Your task to perform on an android device: turn smart compose on in the gmail app Image 0: 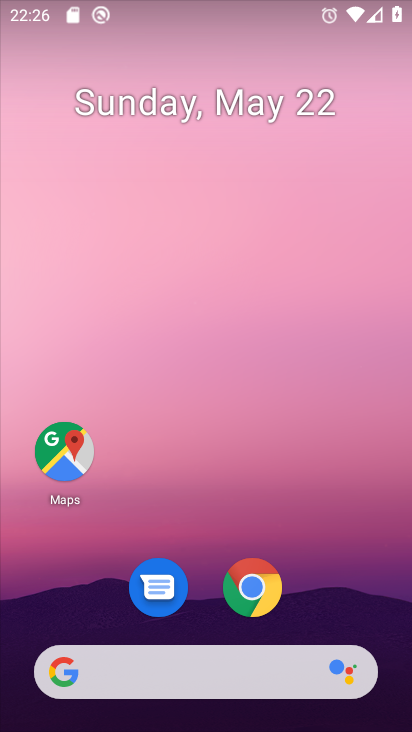
Step 0: drag from (218, 485) to (285, 0)
Your task to perform on an android device: turn smart compose on in the gmail app Image 1: 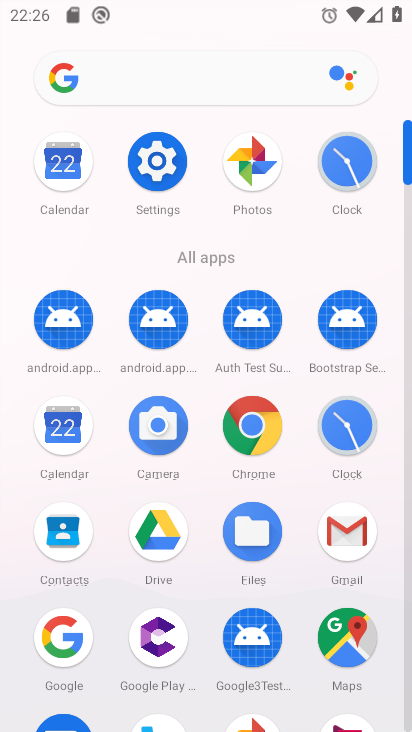
Step 1: click (348, 523)
Your task to perform on an android device: turn smart compose on in the gmail app Image 2: 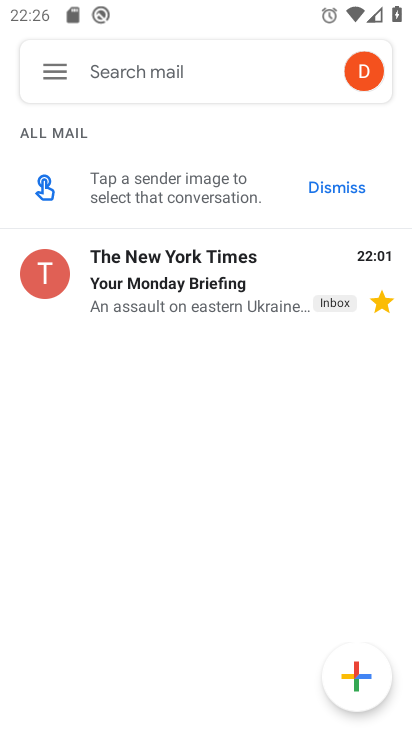
Step 2: click (58, 72)
Your task to perform on an android device: turn smart compose on in the gmail app Image 3: 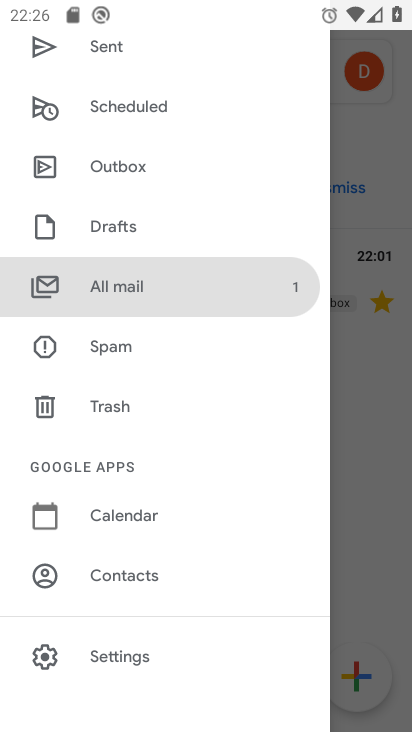
Step 3: click (158, 651)
Your task to perform on an android device: turn smart compose on in the gmail app Image 4: 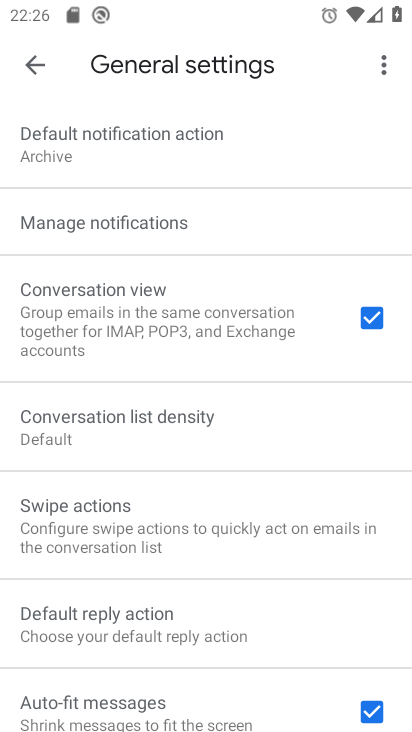
Step 4: drag from (241, 476) to (263, 72)
Your task to perform on an android device: turn smart compose on in the gmail app Image 5: 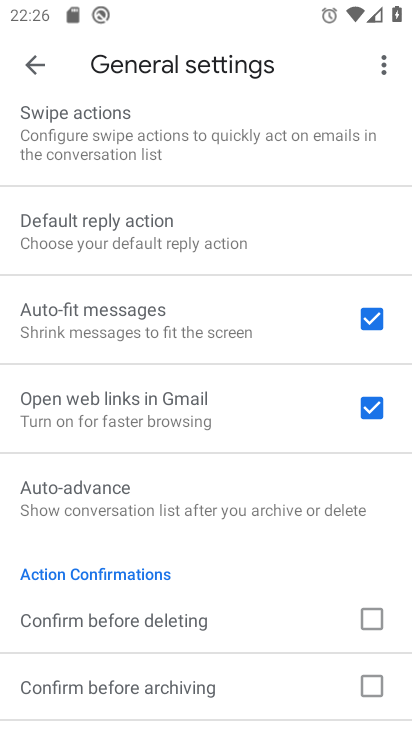
Step 5: click (34, 61)
Your task to perform on an android device: turn smart compose on in the gmail app Image 6: 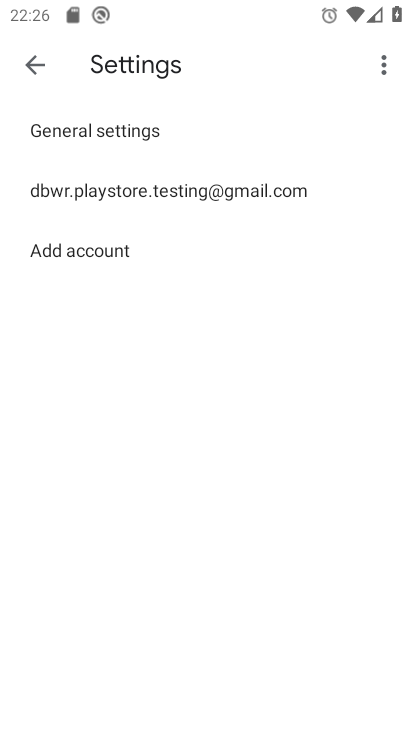
Step 6: click (158, 189)
Your task to perform on an android device: turn smart compose on in the gmail app Image 7: 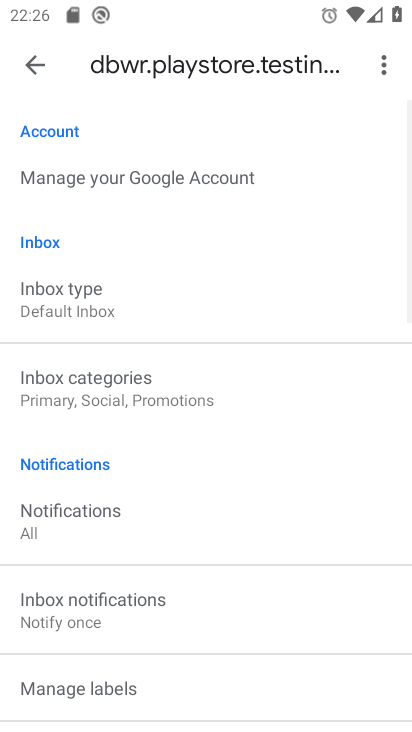
Step 7: task complete